Your task to perform on an android device: open app "Nova Launcher" Image 0: 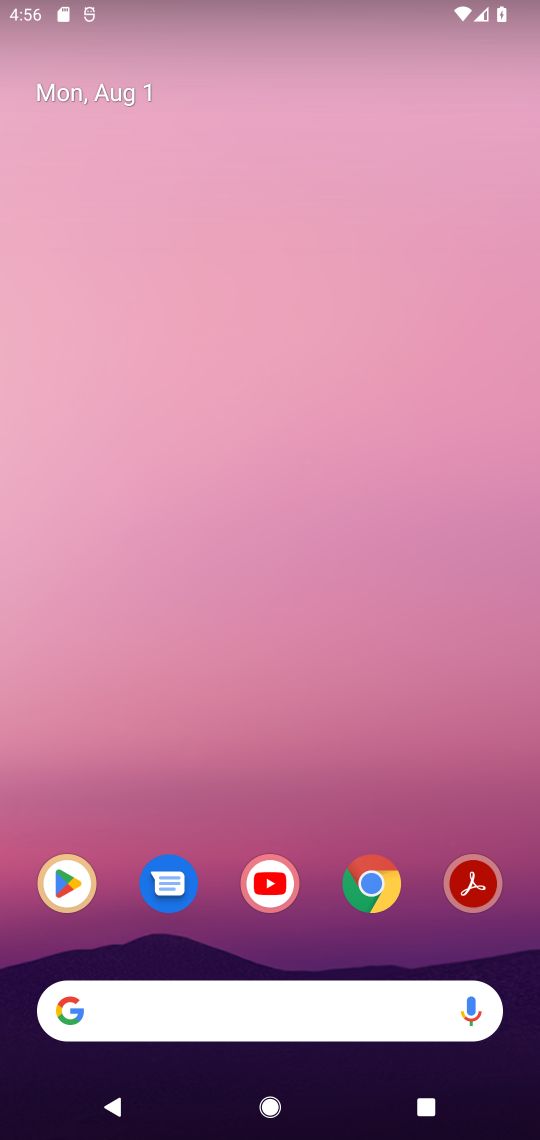
Step 0: drag from (225, 981) to (232, 499)
Your task to perform on an android device: open app "Nova Launcher" Image 1: 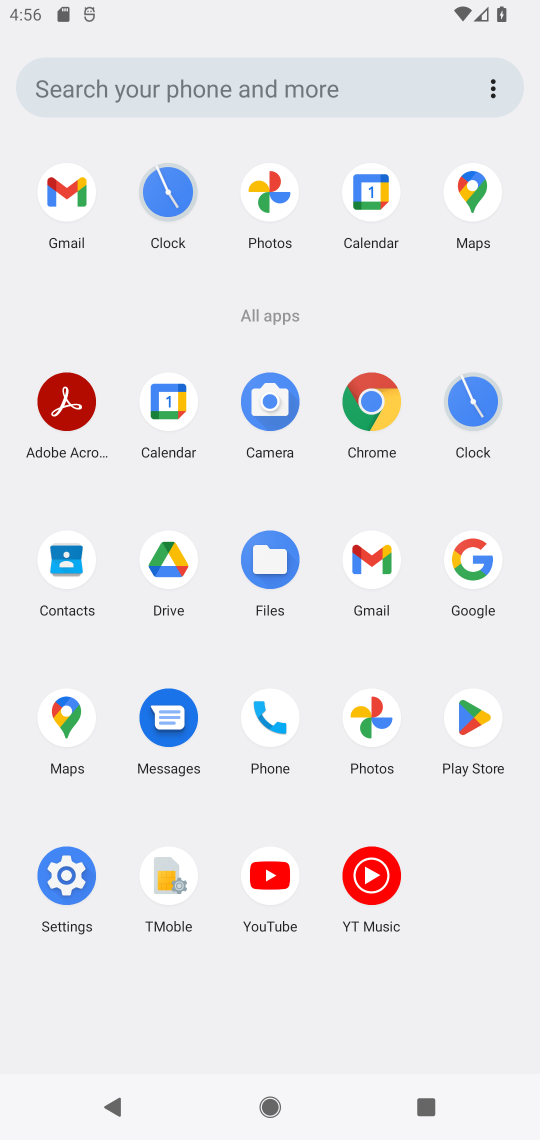
Step 1: click (468, 716)
Your task to perform on an android device: open app "Nova Launcher" Image 2: 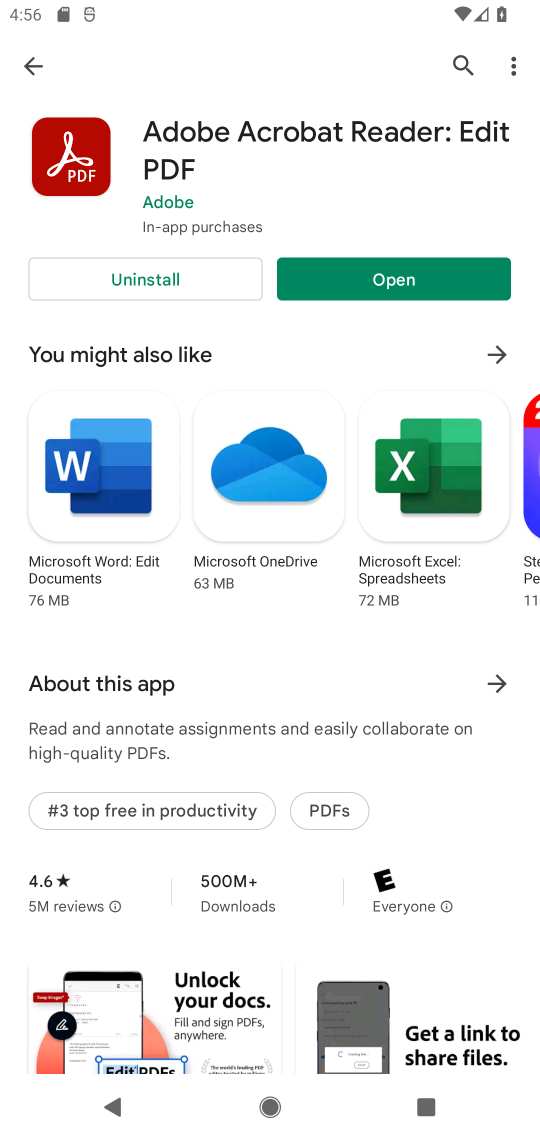
Step 2: click (32, 57)
Your task to perform on an android device: open app "Nova Launcher" Image 3: 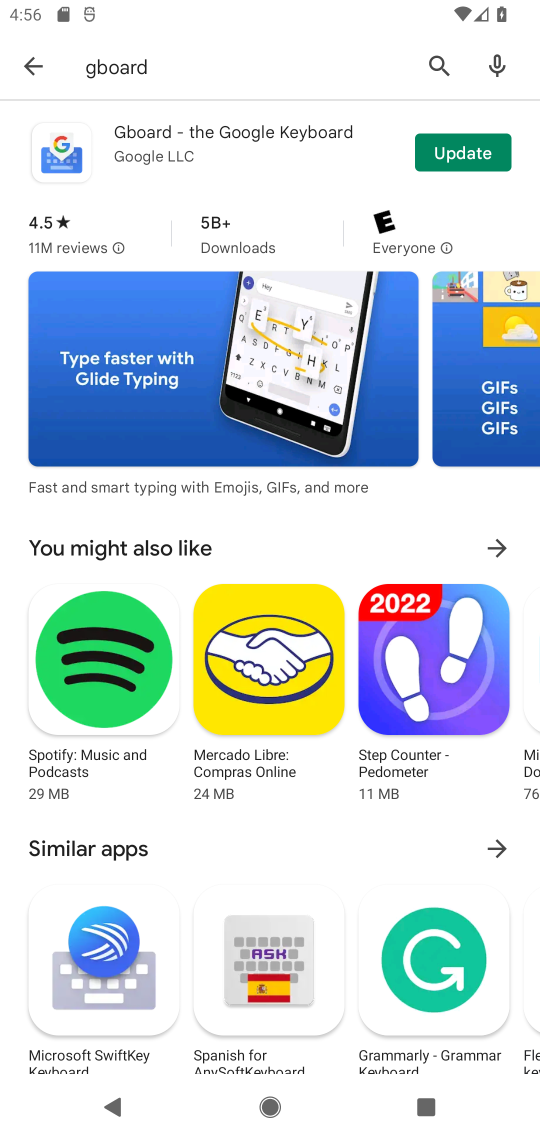
Step 3: click (426, 68)
Your task to perform on an android device: open app "Nova Launcher" Image 4: 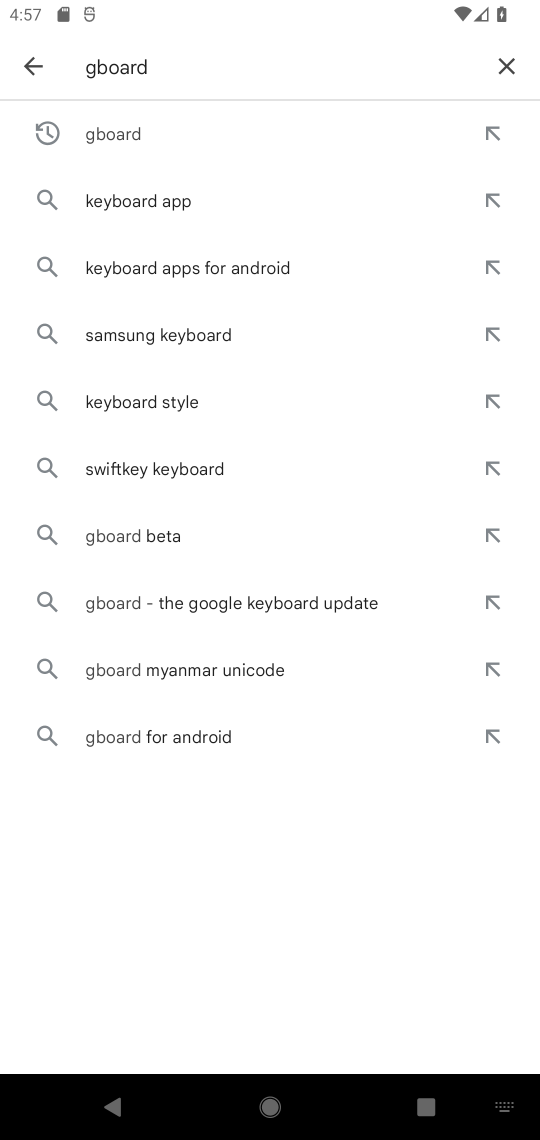
Step 4: click (486, 78)
Your task to perform on an android device: open app "Nova Launcher" Image 5: 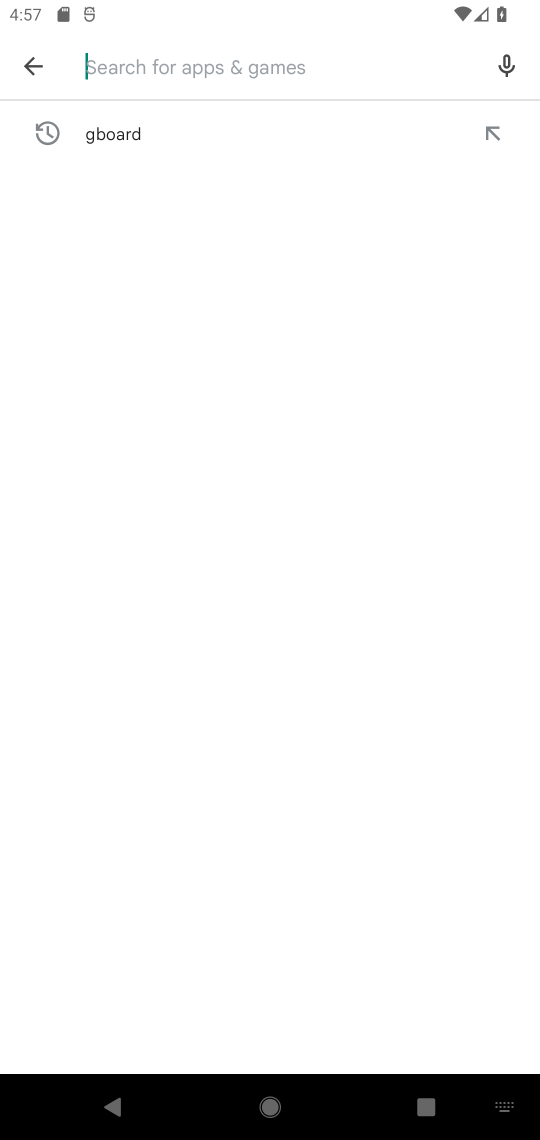
Step 5: type "Nova Launcher"
Your task to perform on an android device: open app "Nova Launcher" Image 6: 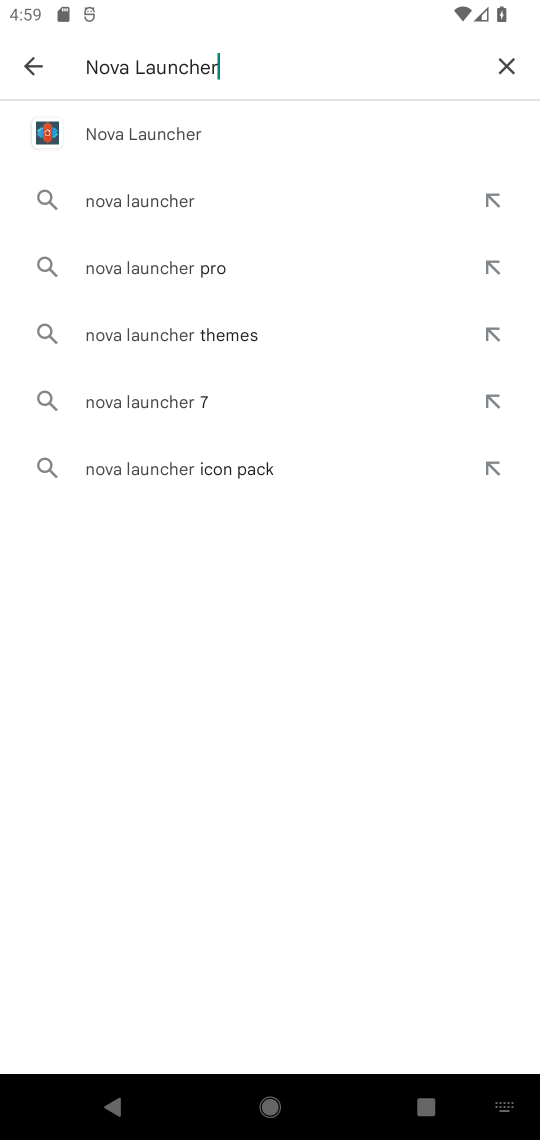
Step 6: click (122, 140)
Your task to perform on an android device: open app "Nova Launcher" Image 7: 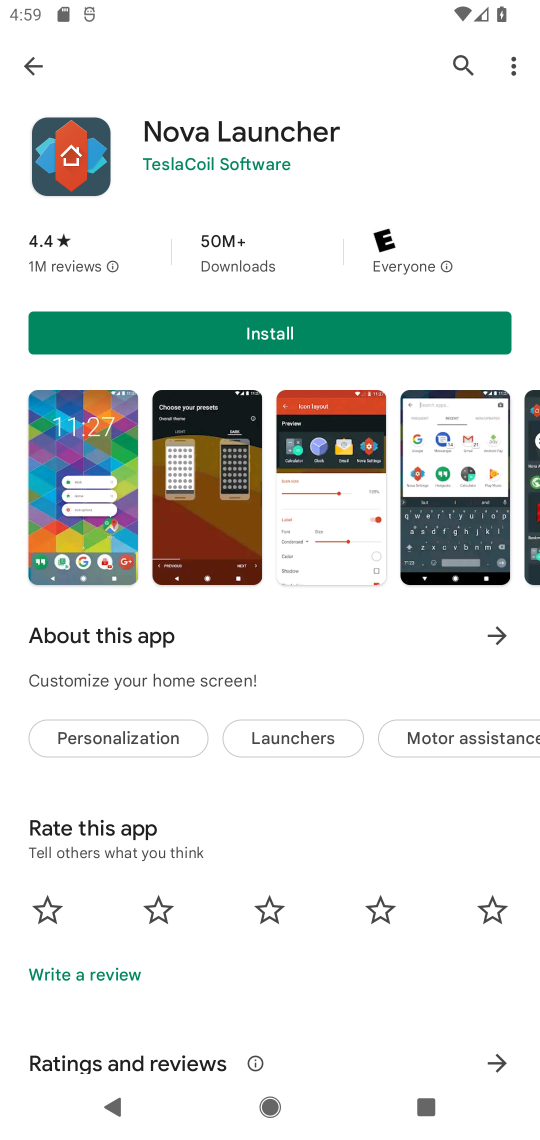
Step 7: click (277, 339)
Your task to perform on an android device: open app "Nova Launcher" Image 8: 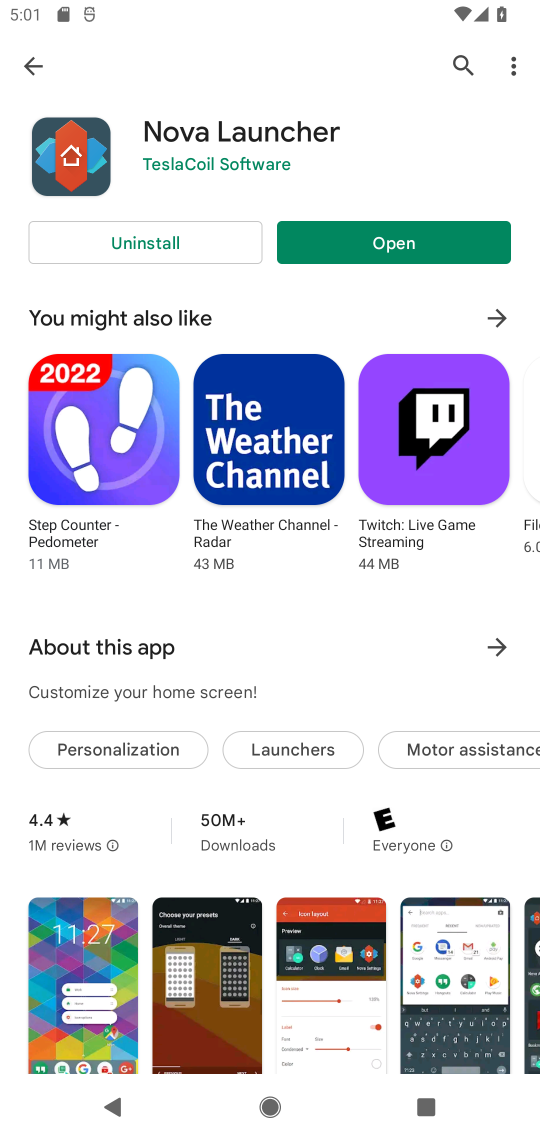
Step 8: task complete